Your task to perform on an android device: Go to Wikipedia Image 0: 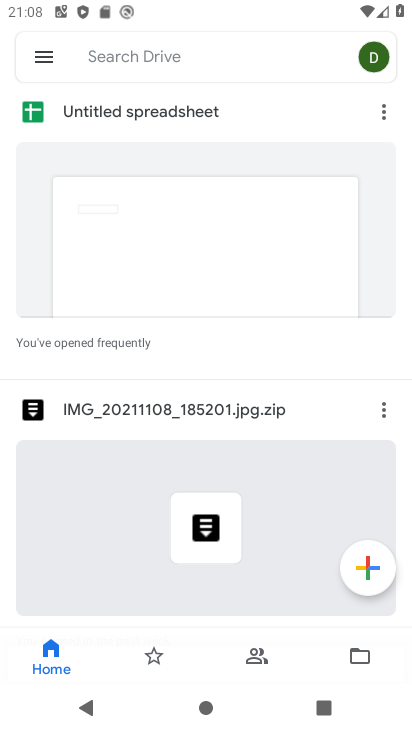
Step 0: press home button
Your task to perform on an android device: Go to Wikipedia Image 1: 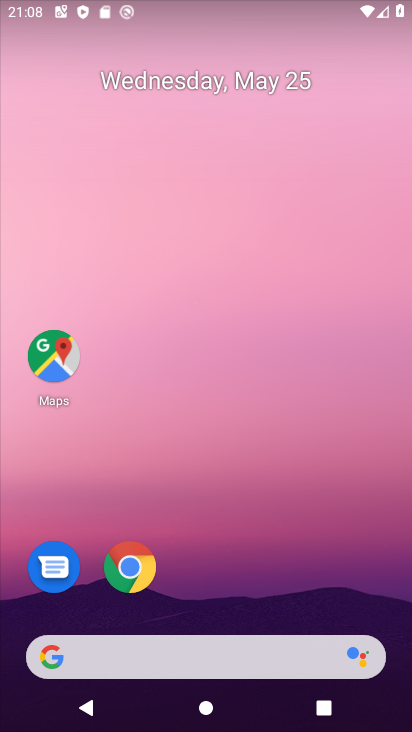
Step 1: click (129, 570)
Your task to perform on an android device: Go to Wikipedia Image 2: 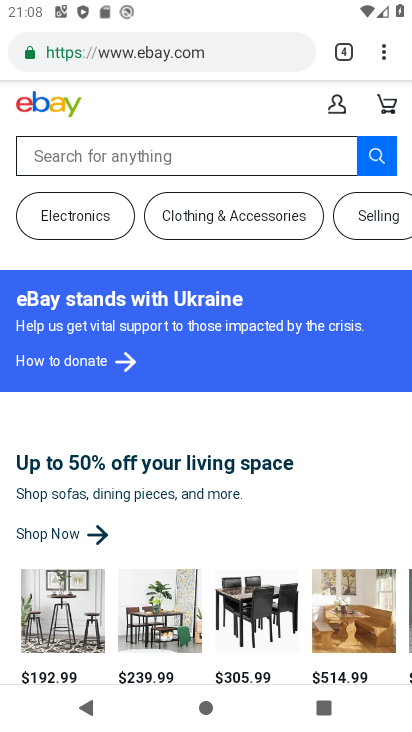
Step 2: click (379, 58)
Your task to perform on an android device: Go to Wikipedia Image 3: 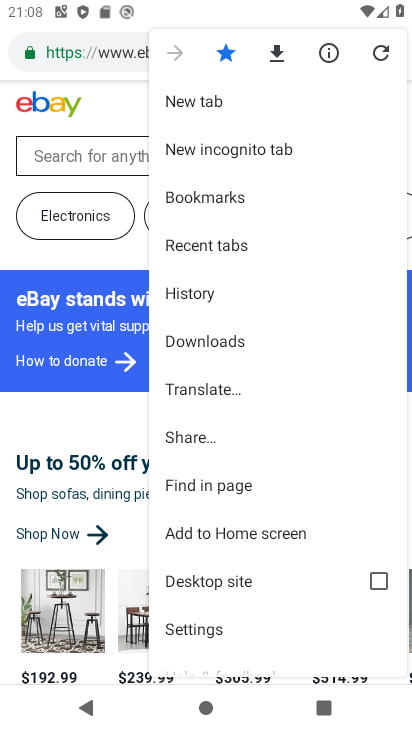
Step 3: click (303, 99)
Your task to perform on an android device: Go to Wikipedia Image 4: 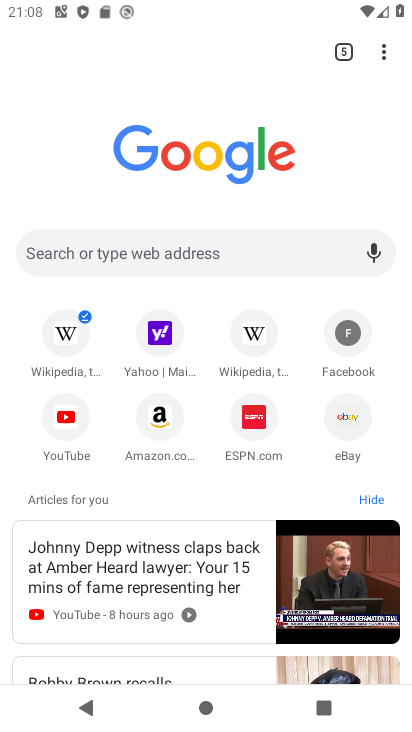
Step 4: click (250, 327)
Your task to perform on an android device: Go to Wikipedia Image 5: 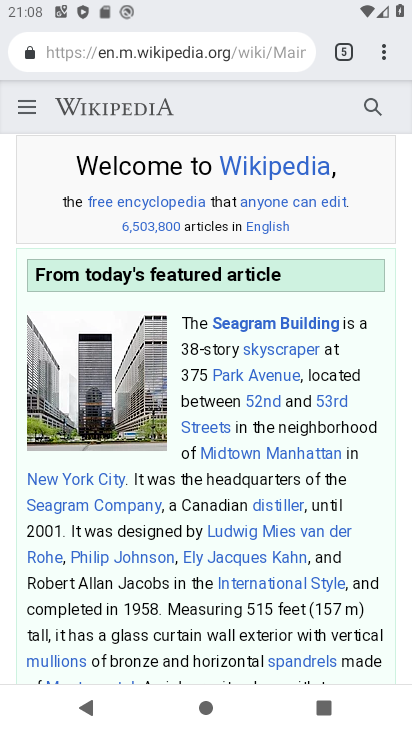
Step 5: task complete